Your task to perform on an android device: What's the weather like in Singapore? Image 0: 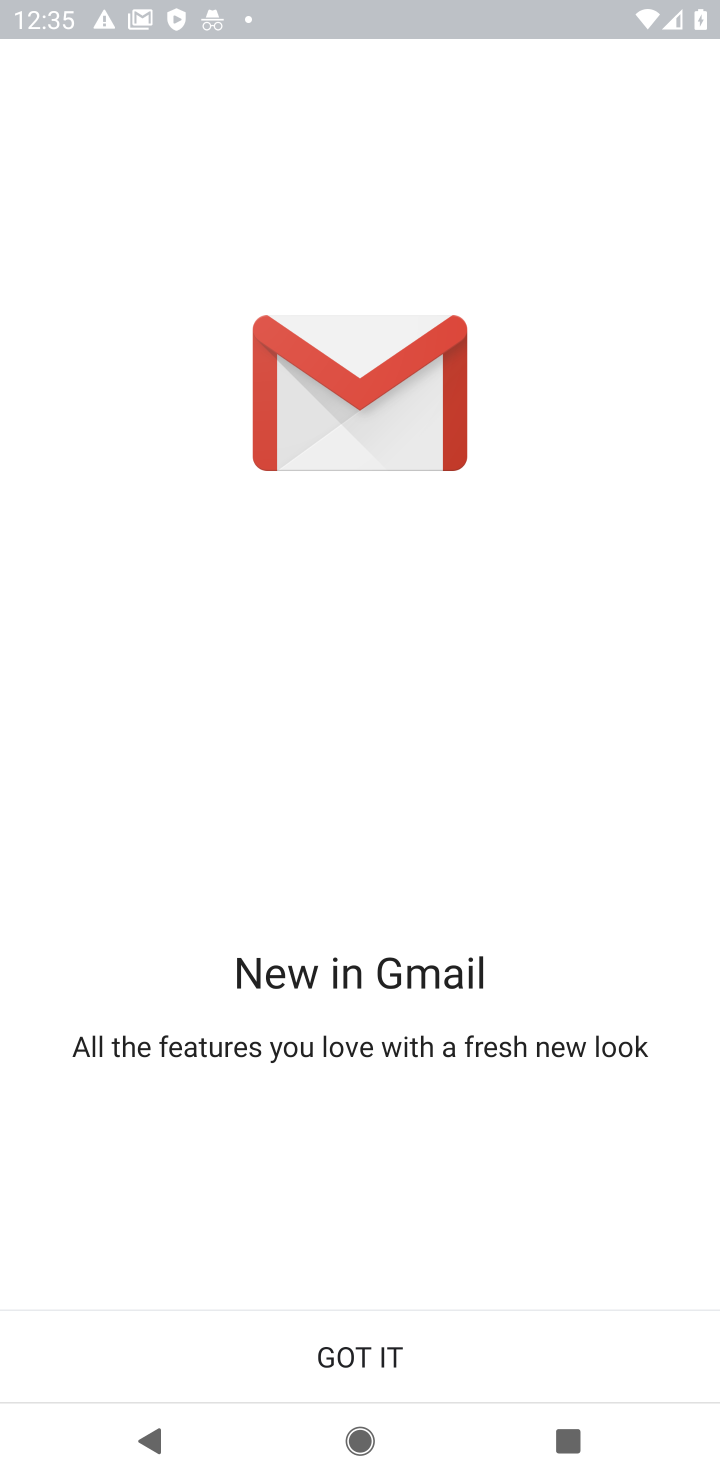
Step 0: press home button
Your task to perform on an android device: What's the weather like in Singapore? Image 1: 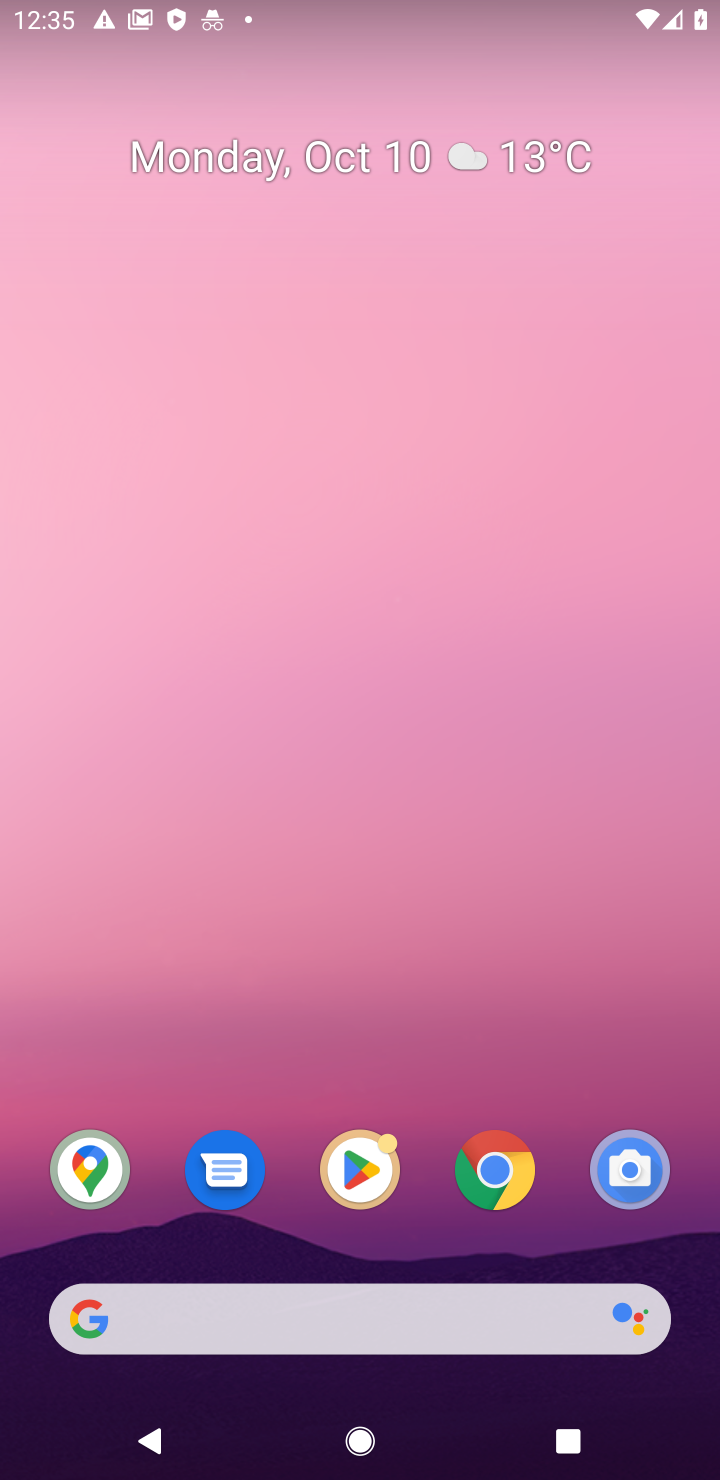
Step 1: click (496, 1166)
Your task to perform on an android device: What's the weather like in Singapore? Image 2: 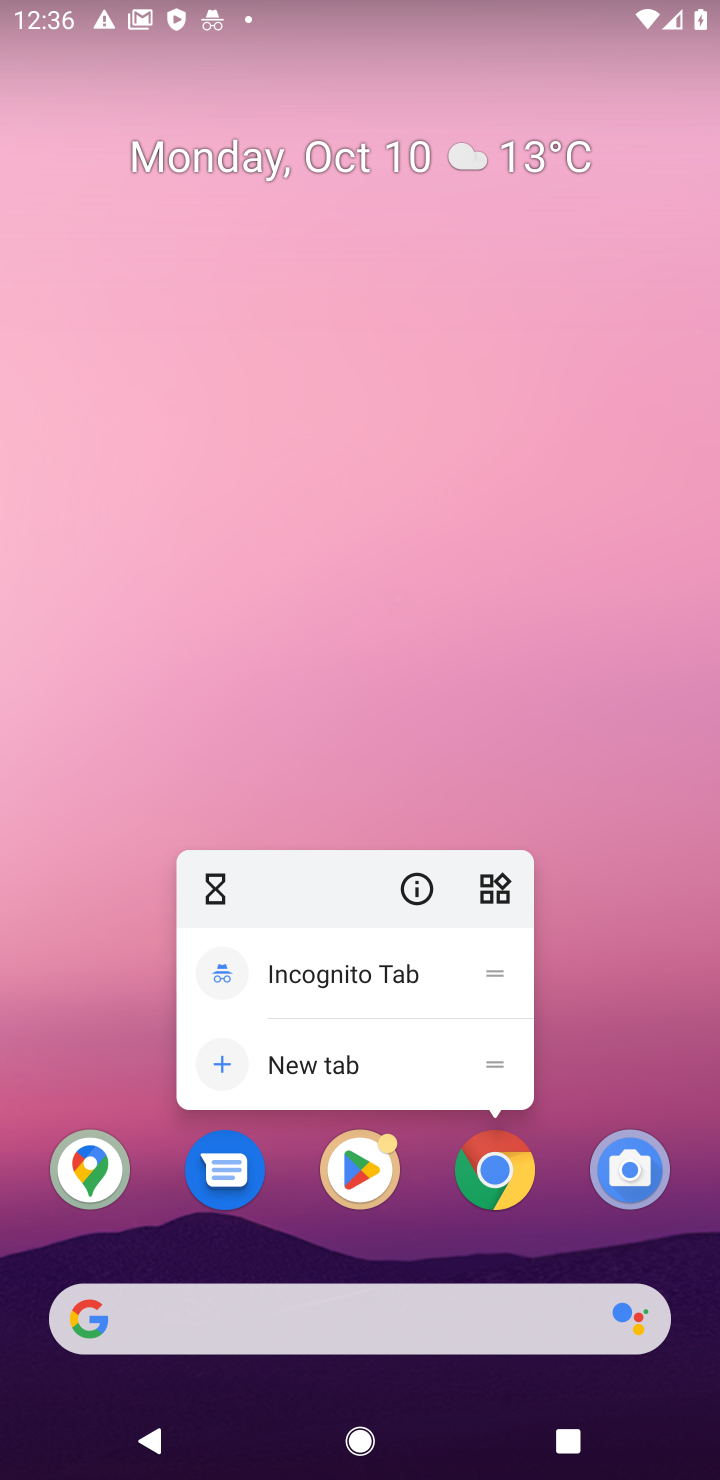
Step 2: click (494, 1172)
Your task to perform on an android device: What's the weather like in Singapore? Image 3: 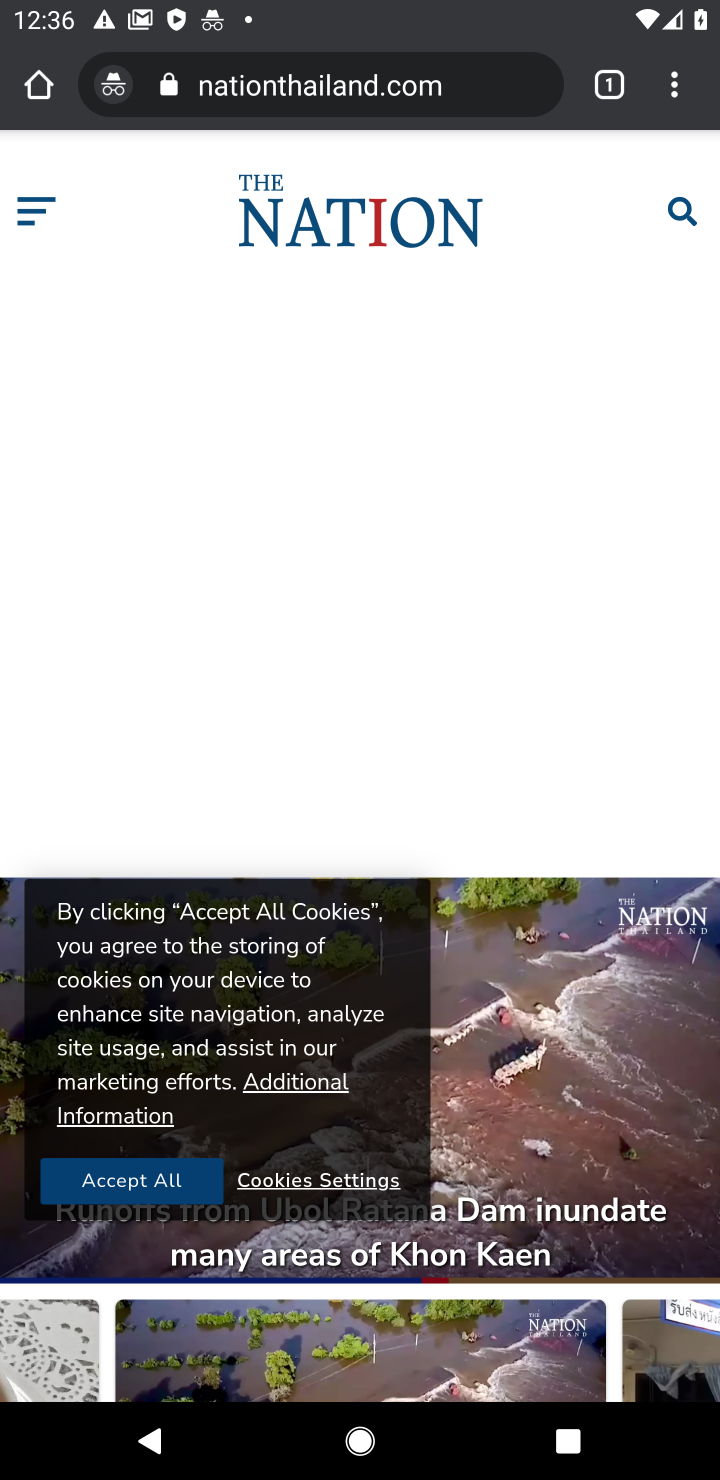
Step 3: click (294, 87)
Your task to perform on an android device: What's the weather like in Singapore? Image 4: 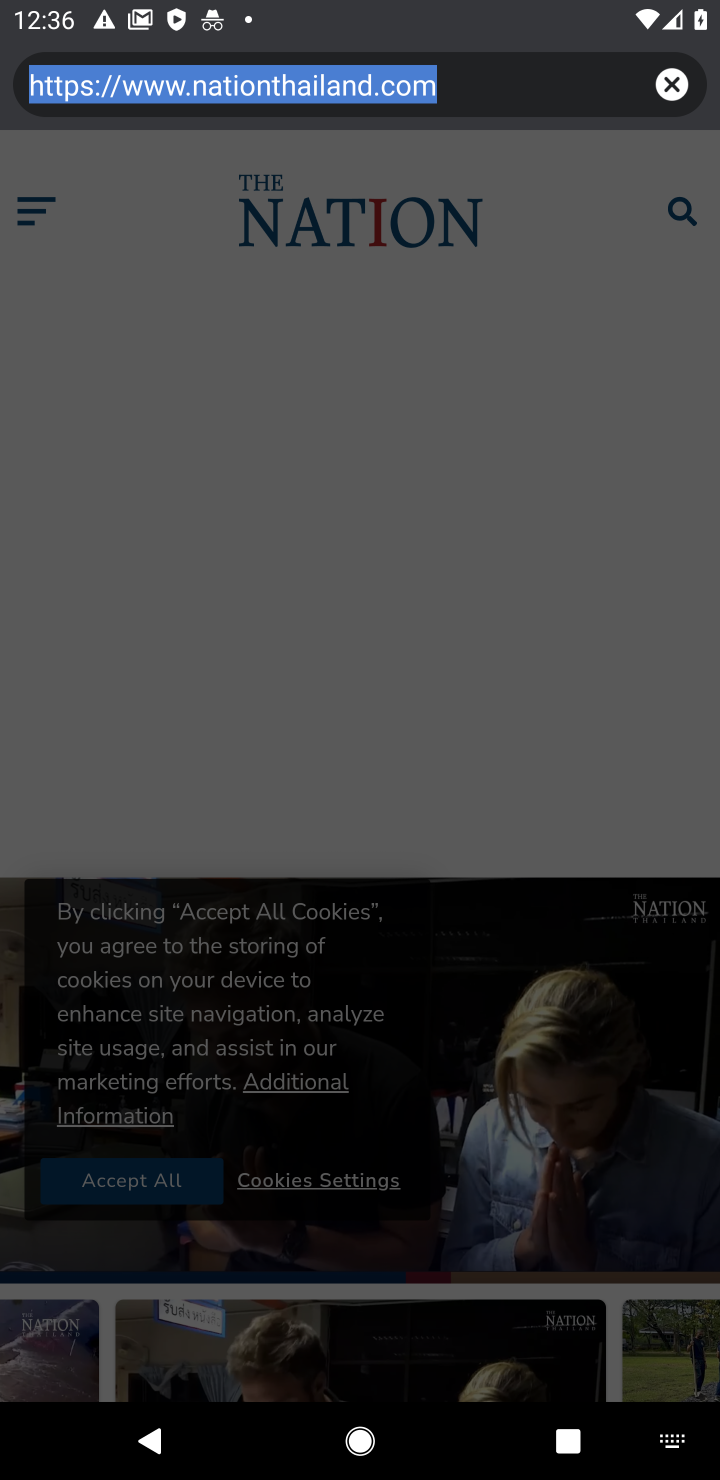
Step 4: click (678, 66)
Your task to perform on an android device: What's the weather like in Singapore? Image 5: 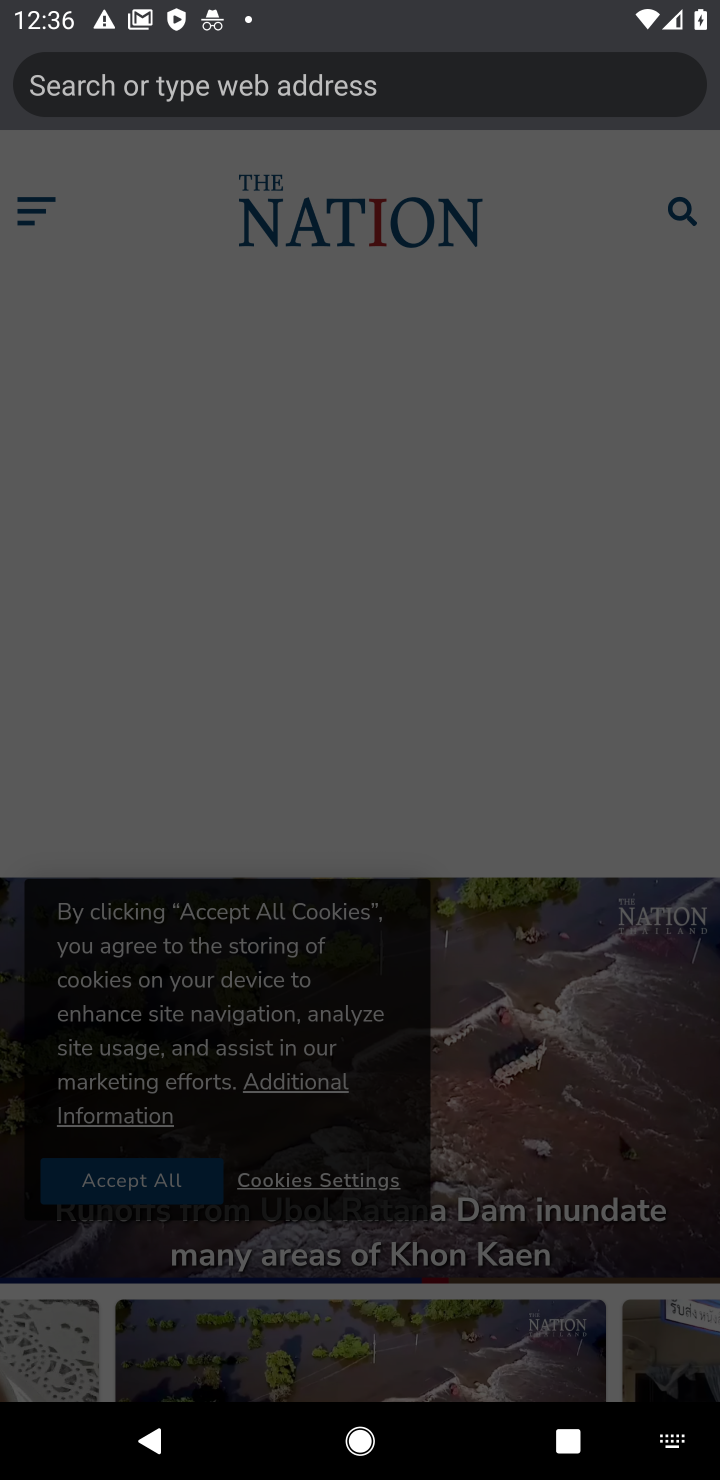
Step 5: type "Weather in Singapore"
Your task to perform on an android device: What's the weather like in Singapore? Image 6: 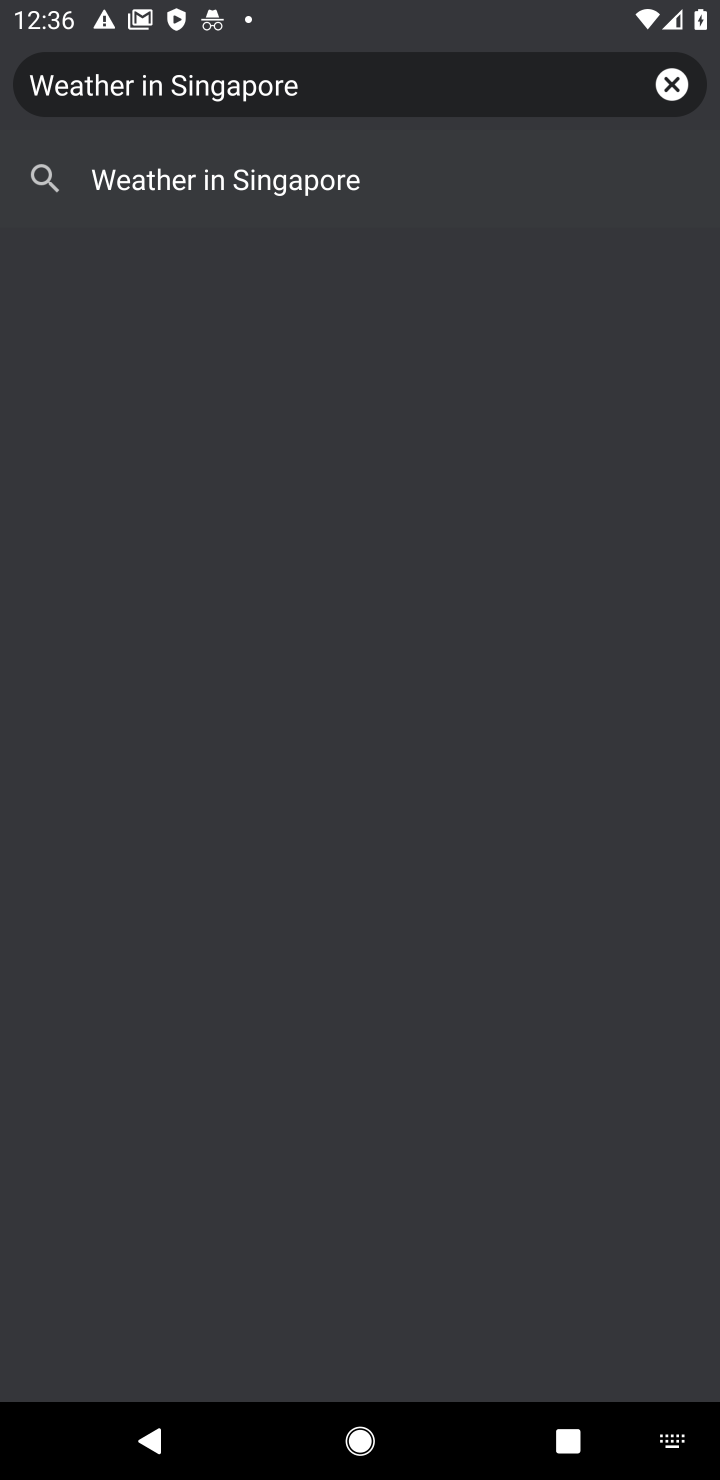
Step 6: click (238, 181)
Your task to perform on an android device: What's the weather like in Singapore? Image 7: 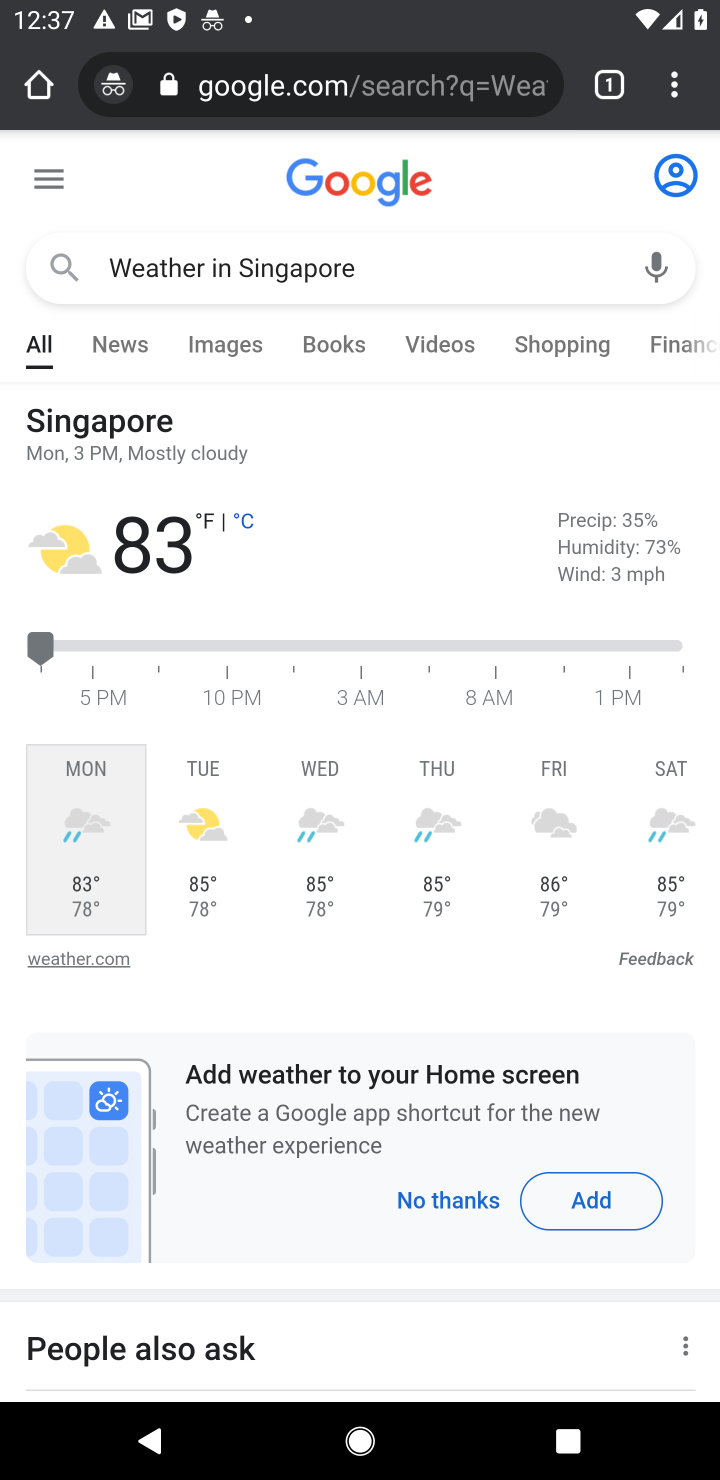
Step 7: task complete